Your task to perform on an android device: turn pop-ups off in chrome Image 0: 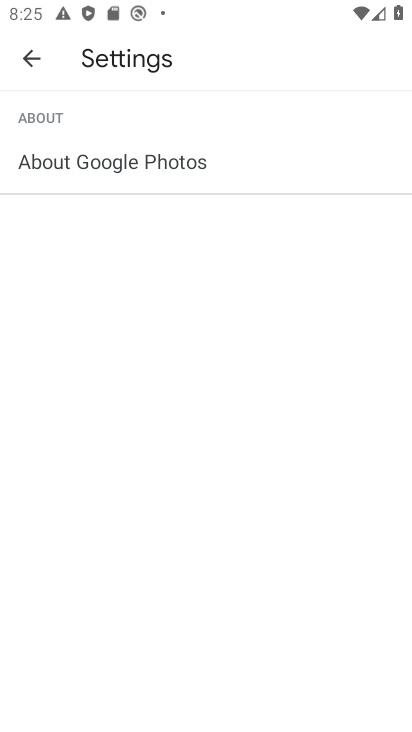
Step 0: press home button
Your task to perform on an android device: turn pop-ups off in chrome Image 1: 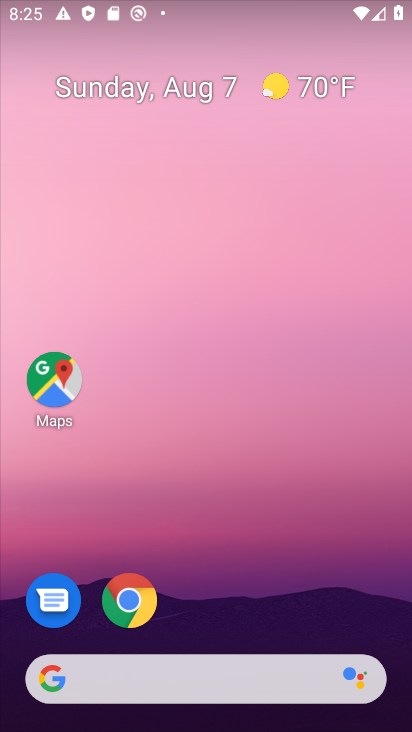
Step 1: click (131, 600)
Your task to perform on an android device: turn pop-ups off in chrome Image 2: 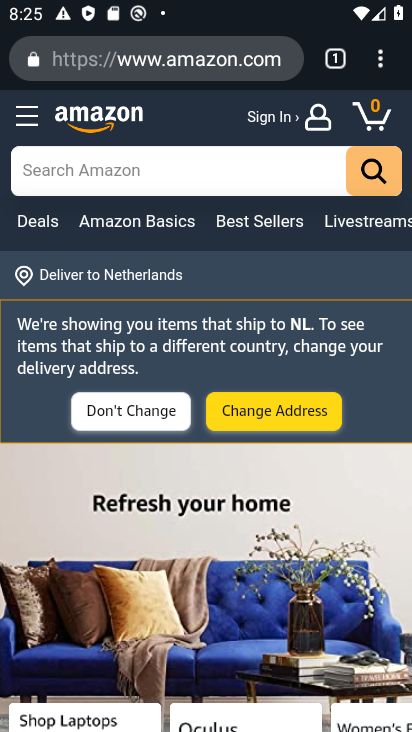
Step 2: click (378, 61)
Your task to perform on an android device: turn pop-ups off in chrome Image 3: 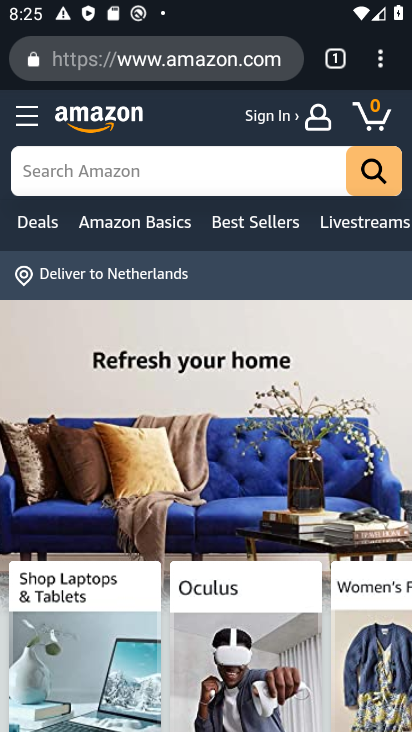
Step 3: click (381, 61)
Your task to perform on an android device: turn pop-ups off in chrome Image 4: 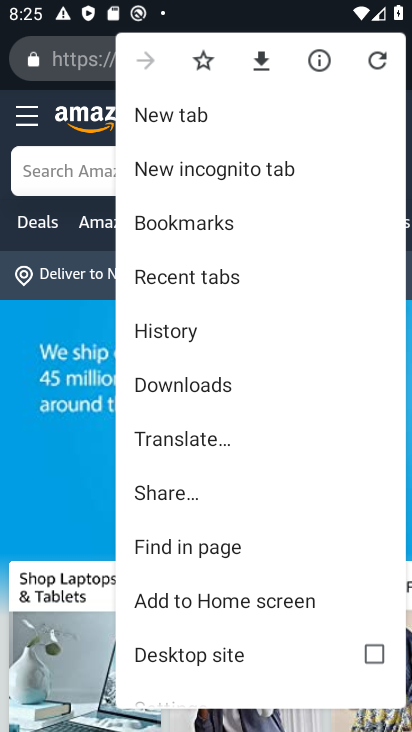
Step 4: drag from (222, 325) to (228, 289)
Your task to perform on an android device: turn pop-ups off in chrome Image 5: 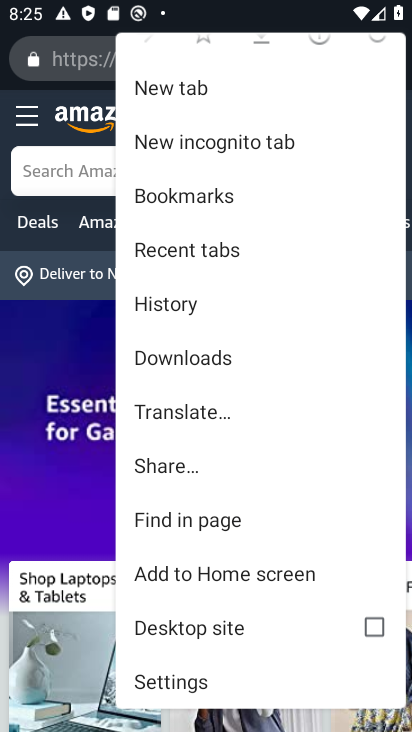
Step 5: click (173, 684)
Your task to perform on an android device: turn pop-ups off in chrome Image 6: 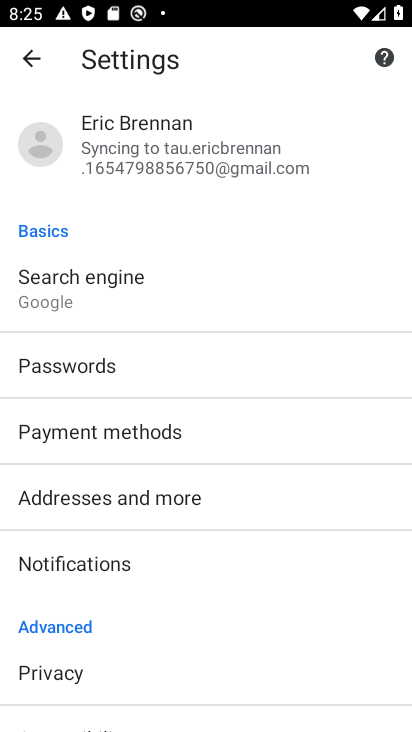
Step 6: drag from (145, 545) to (136, 257)
Your task to perform on an android device: turn pop-ups off in chrome Image 7: 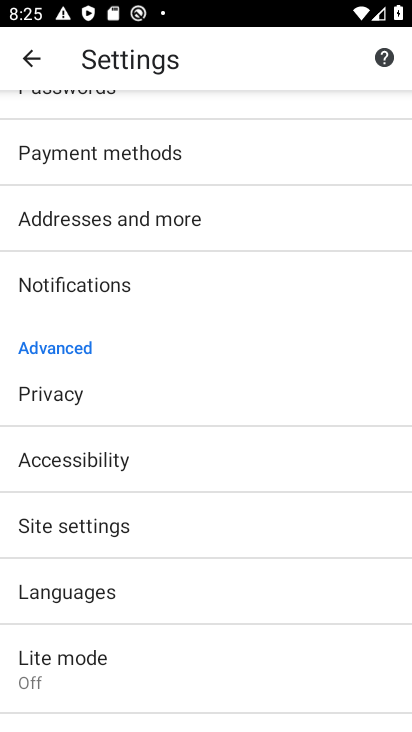
Step 7: click (90, 530)
Your task to perform on an android device: turn pop-ups off in chrome Image 8: 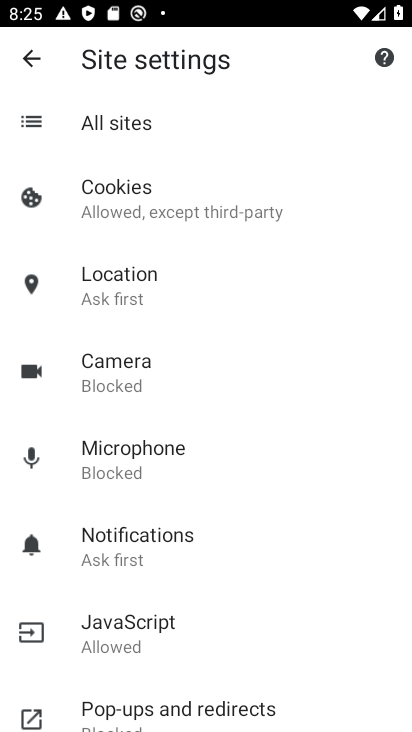
Step 8: click (127, 711)
Your task to perform on an android device: turn pop-ups off in chrome Image 9: 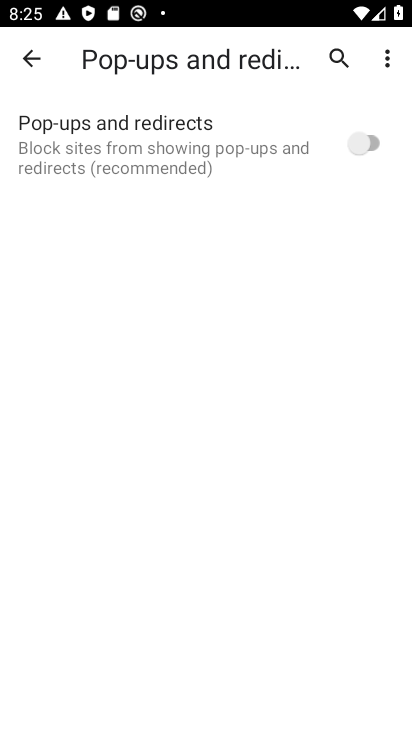
Step 9: task complete